Your task to perform on an android device: change the clock style Image 0: 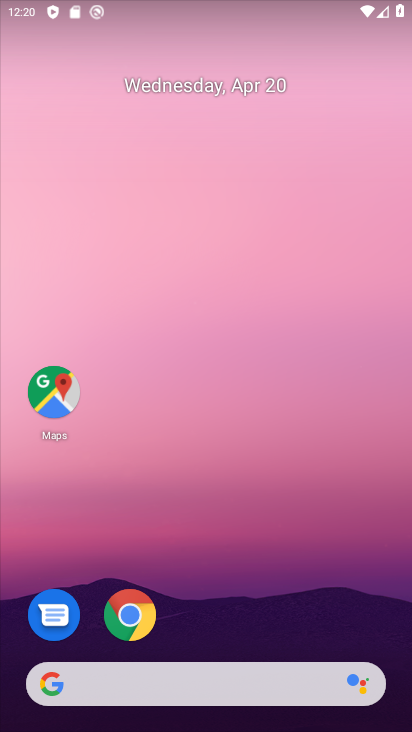
Step 0: drag from (212, 568) to (207, 142)
Your task to perform on an android device: change the clock style Image 1: 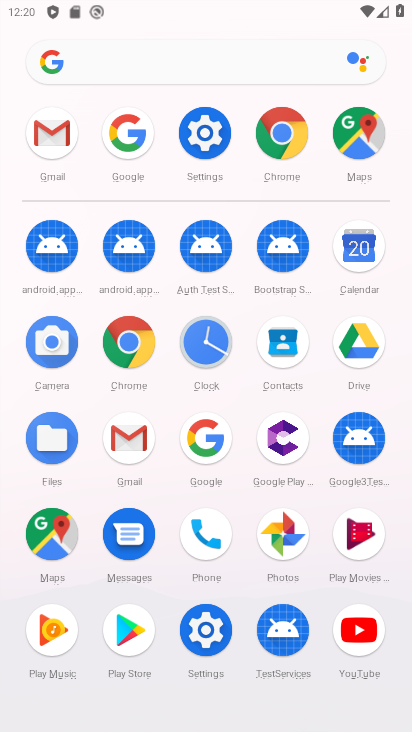
Step 1: click (204, 344)
Your task to perform on an android device: change the clock style Image 2: 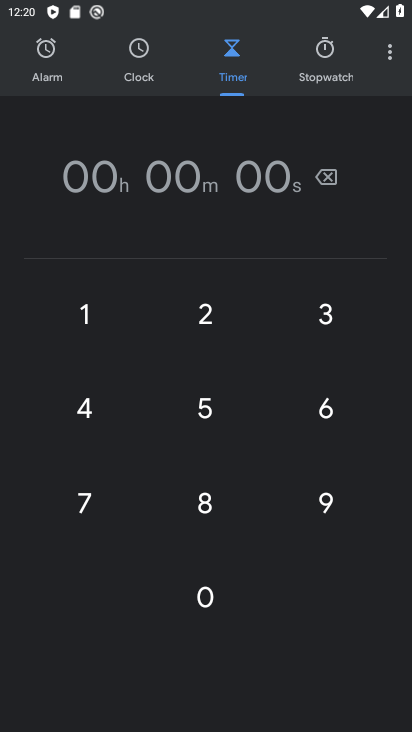
Step 2: click (380, 51)
Your task to perform on an android device: change the clock style Image 3: 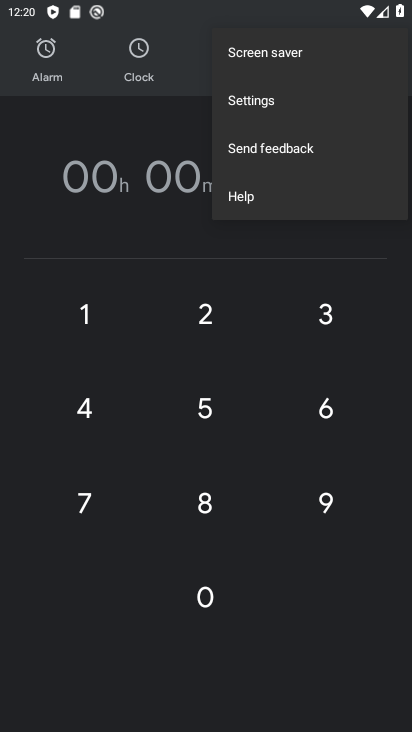
Step 3: click (273, 105)
Your task to perform on an android device: change the clock style Image 4: 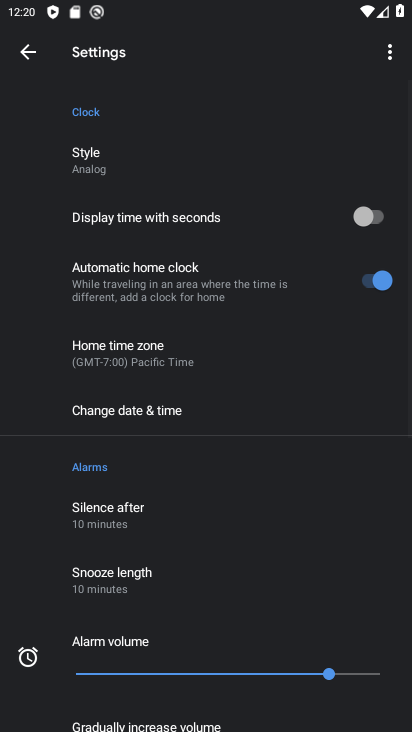
Step 4: click (135, 172)
Your task to perform on an android device: change the clock style Image 5: 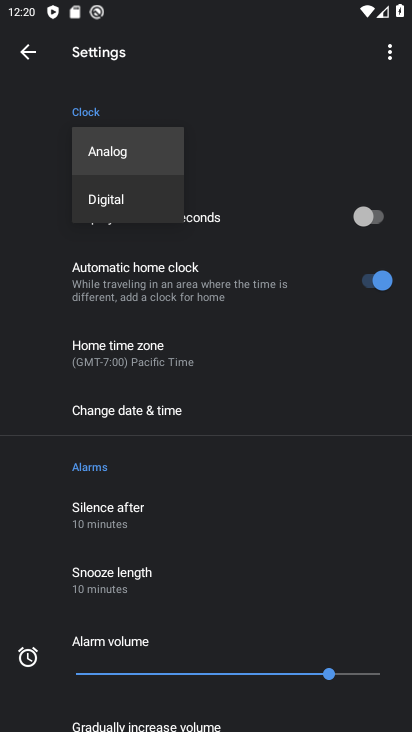
Step 5: click (128, 199)
Your task to perform on an android device: change the clock style Image 6: 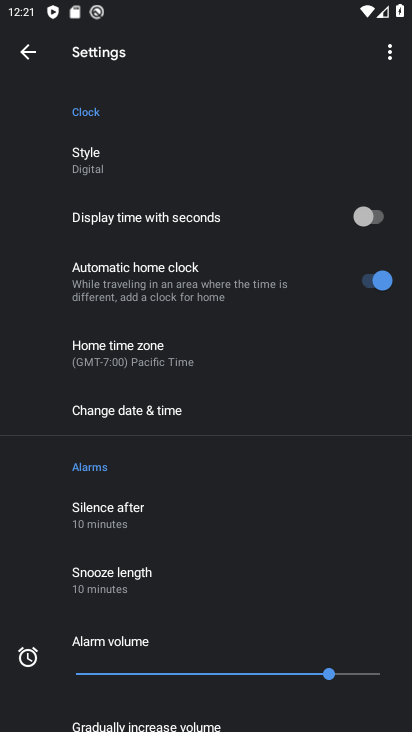
Step 6: task complete